Your task to perform on an android device: find which apps use the phone's location Image 0: 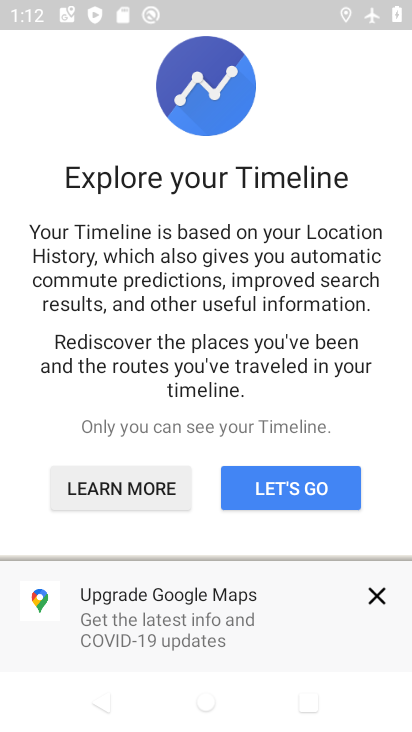
Step 0: press home button
Your task to perform on an android device: find which apps use the phone's location Image 1: 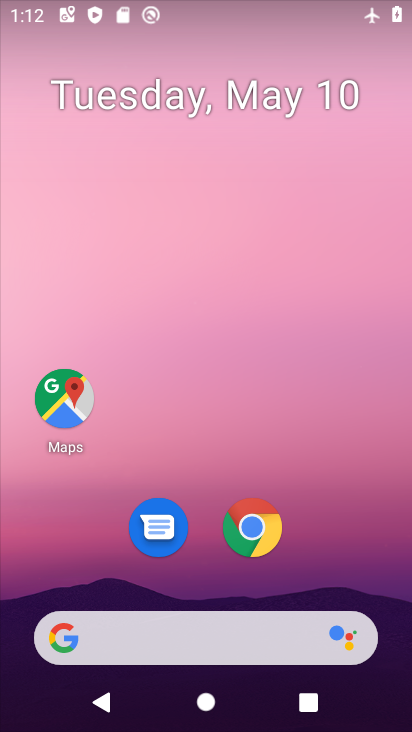
Step 1: drag from (241, 585) to (327, 167)
Your task to perform on an android device: find which apps use the phone's location Image 2: 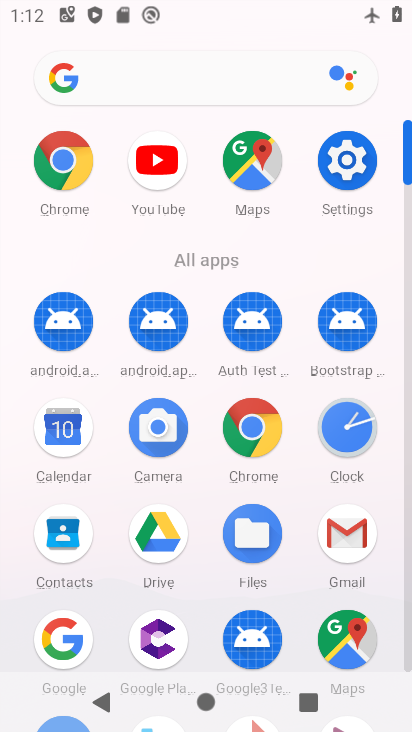
Step 2: click (345, 163)
Your task to perform on an android device: find which apps use the phone's location Image 3: 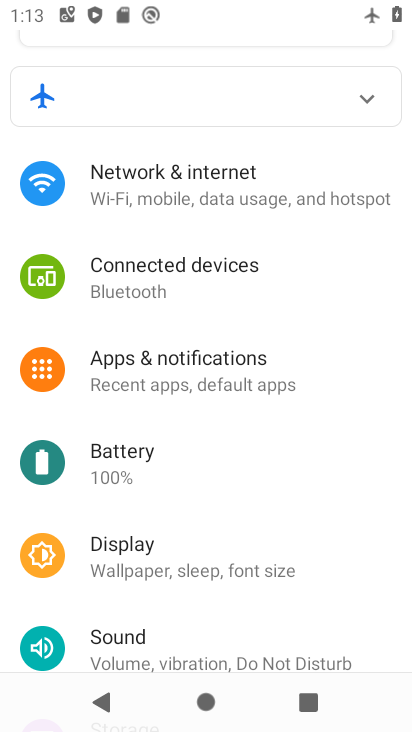
Step 3: drag from (198, 630) to (215, 393)
Your task to perform on an android device: find which apps use the phone's location Image 4: 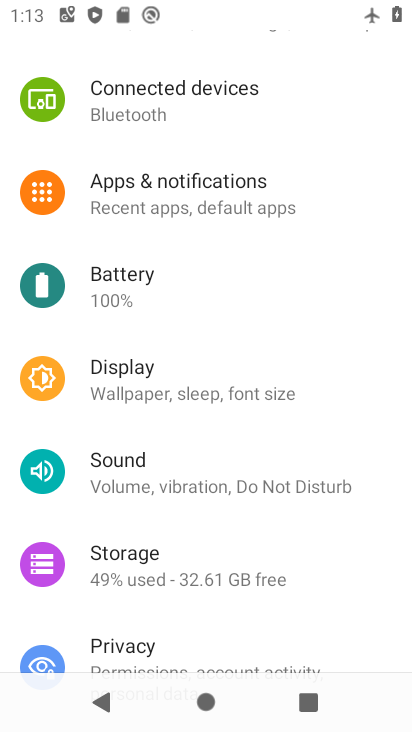
Step 4: drag from (189, 633) to (201, 407)
Your task to perform on an android device: find which apps use the phone's location Image 5: 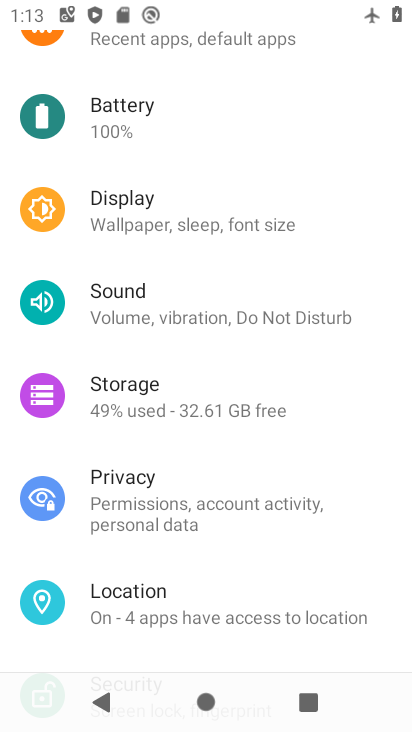
Step 5: drag from (187, 563) to (244, 300)
Your task to perform on an android device: find which apps use the phone's location Image 6: 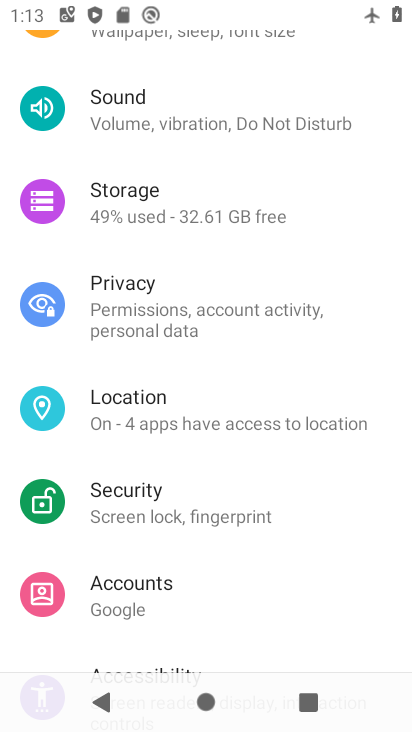
Step 6: click (162, 417)
Your task to perform on an android device: find which apps use the phone's location Image 7: 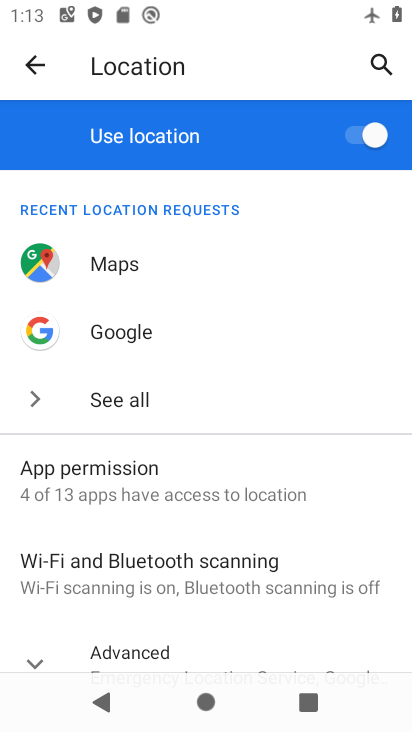
Step 7: click (107, 284)
Your task to perform on an android device: find which apps use the phone's location Image 8: 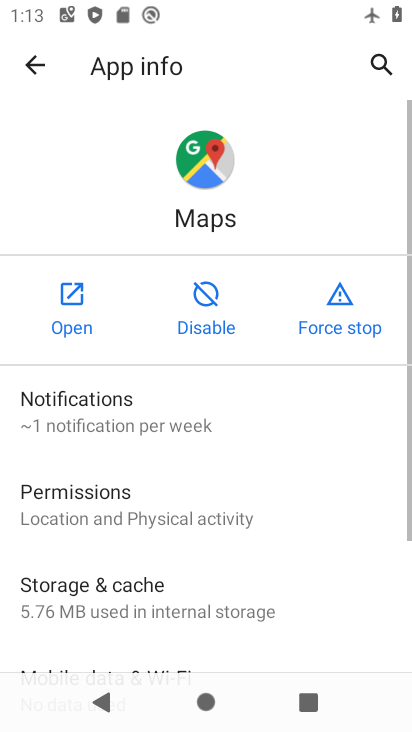
Step 8: task complete